Your task to perform on an android device: check the backup settings in the google photos Image 0: 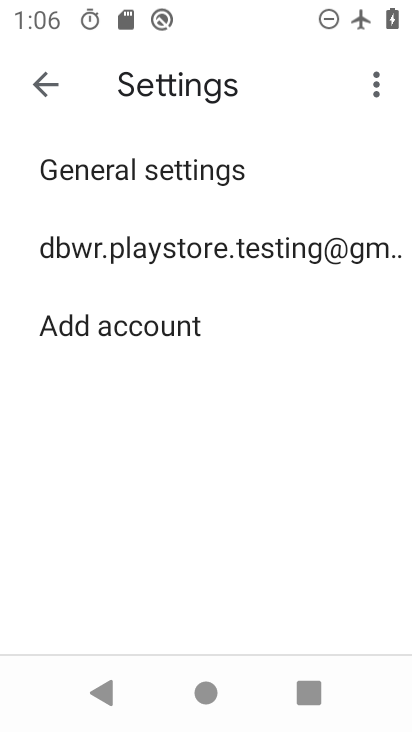
Step 0: press home button
Your task to perform on an android device: check the backup settings in the google photos Image 1: 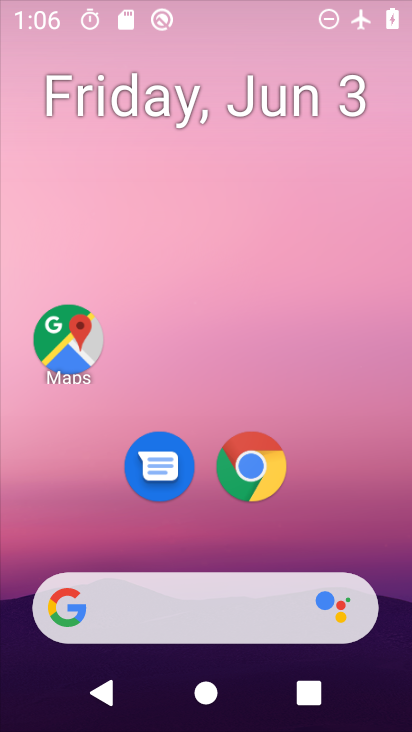
Step 1: drag from (198, 535) to (171, 104)
Your task to perform on an android device: check the backup settings in the google photos Image 2: 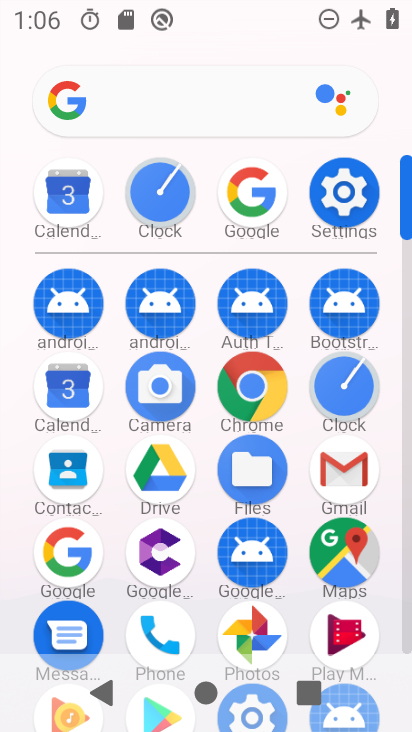
Step 2: drag from (191, 602) to (204, 375)
Your task to perform on an android device: check the backup settings in the google photos Image 3: 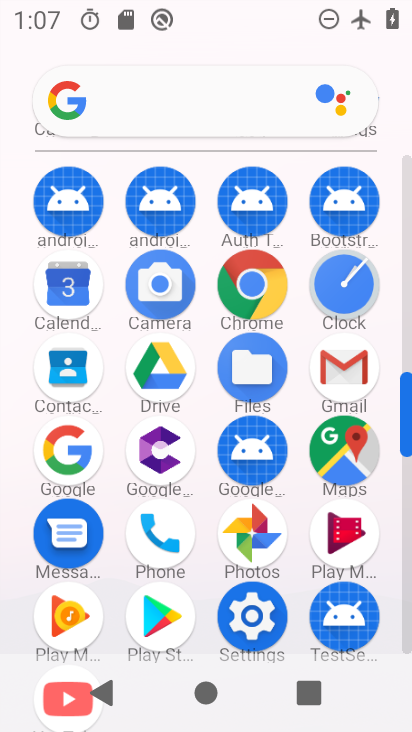
Step 3: click (248, 553)
Your task to perform on an android device: check the backup settings in the google photos Image 4: 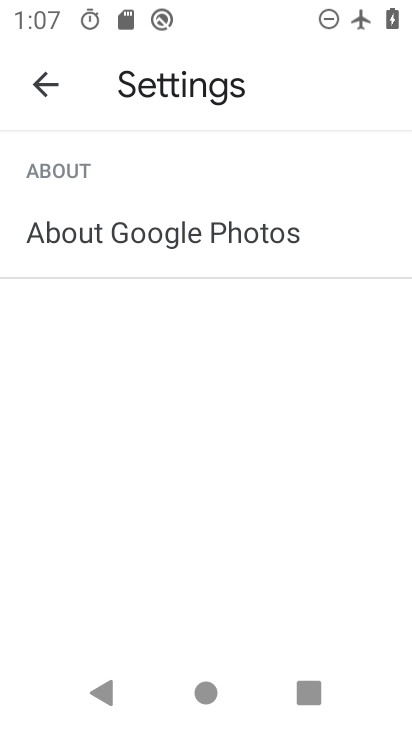
Step 4: click (47, 89)
Your task to perform on an android device: check the backup settings in the google photos Image 5: 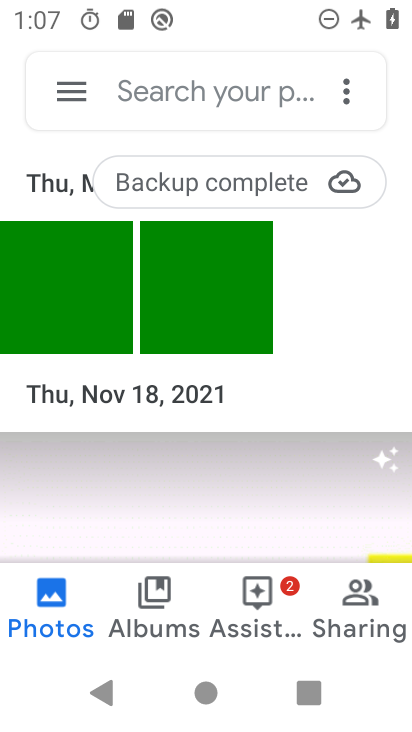
Step 5: click (65, 102)
Your task to perform on an android device: check the backup settings in the google photos Image 6: 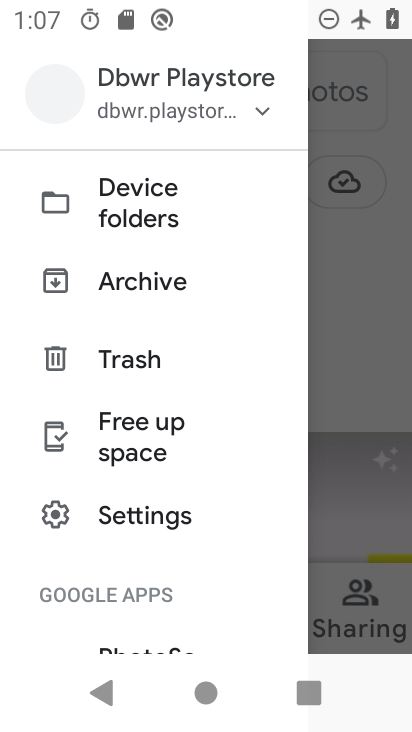
Step 6: click (138, 510)
Your task to perform on an android device: check the backup settings in the google photos Image 7: 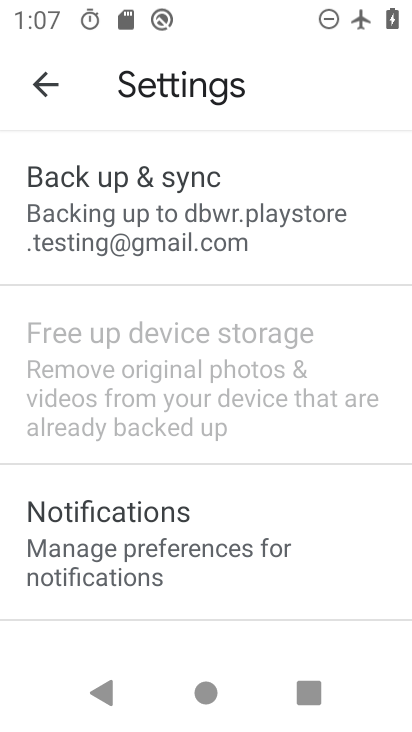
Step 7: drag from (203, 277) to (221, 478)
Your task to perform on an android device: check the backup settings in the google photos Image 8: 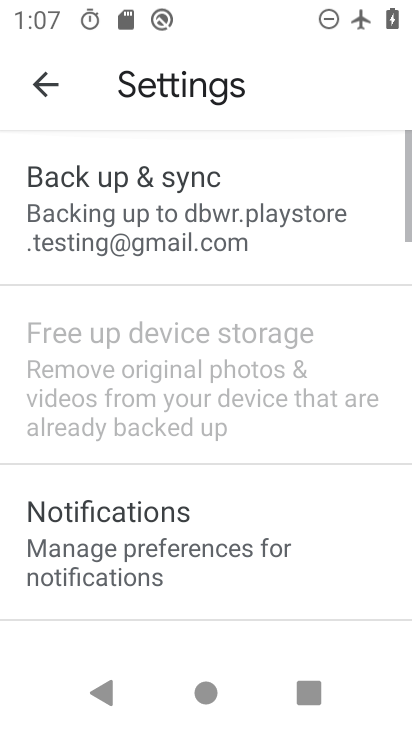
Step 8: click (170, 235)
Your task to perform on an android device: check the backup settings in the google photos Image 9: 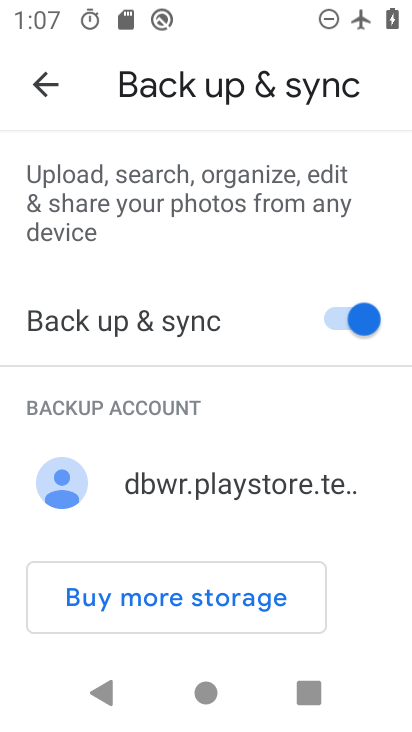
Step 9: task complete